Your task to perform on an android device: snooze an email in the gmail app Image 0: 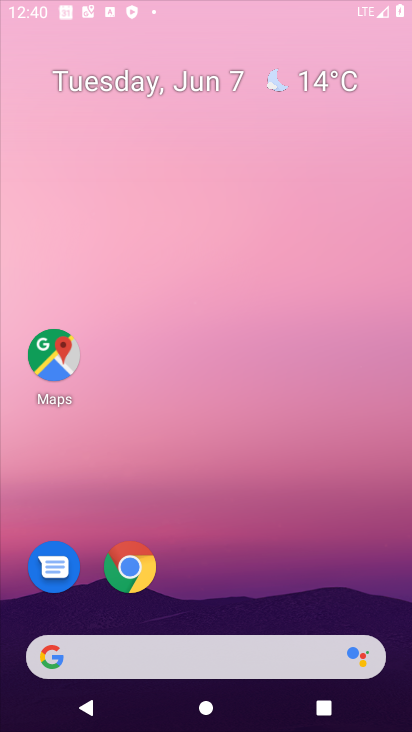
Step 0: drag from (336, 439) to (360, 106)
Your task to perform on an android device: snooze an email in the gmail app Image 1: 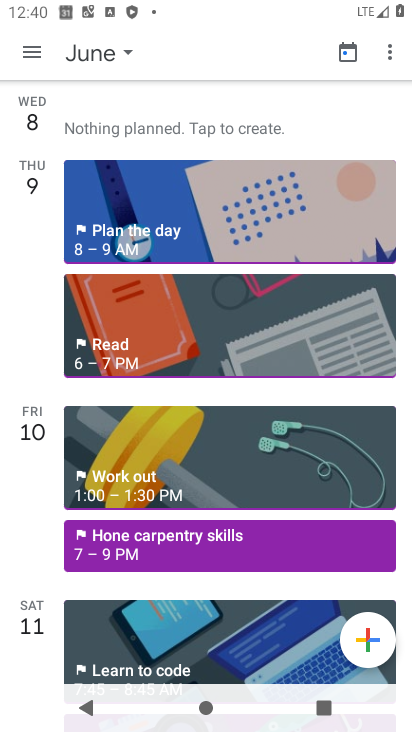
Step 1: press home button
Your task to perform on an android device: snooze an email in the gmail app Image 2: 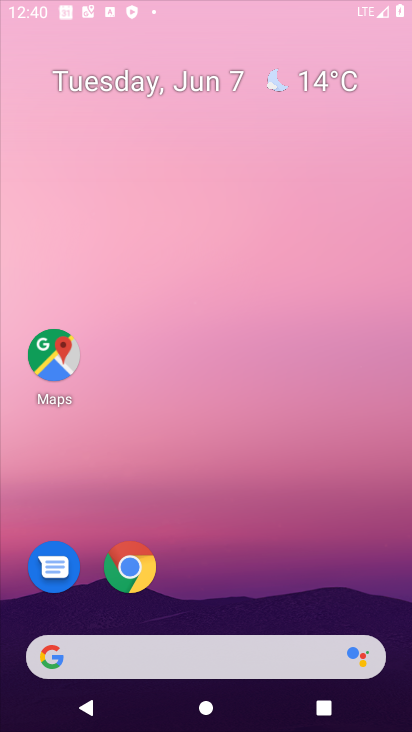
Step 2: drag from (260, 520) to (249, 166)
Your task to perform on an android device: snooze an email in the gmail app Image 3: 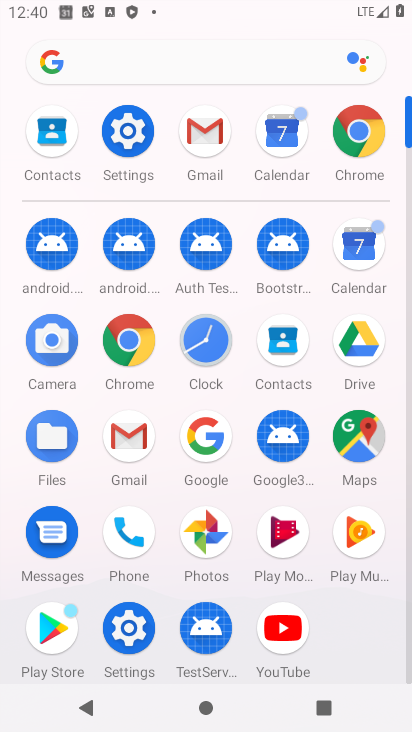
Step 3: click (133, 429)
Your task to perform on an android device: snooze an email in the gmail app Image 4: 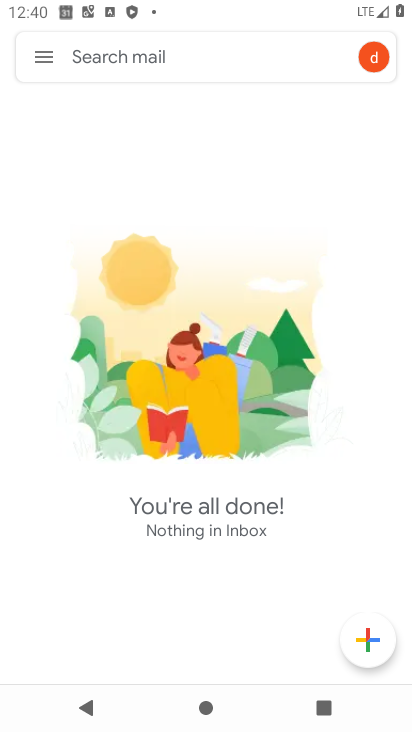
Step 4: task complete